Your task to perform on an android device: Is it going to rain tomorrow? Image 0: 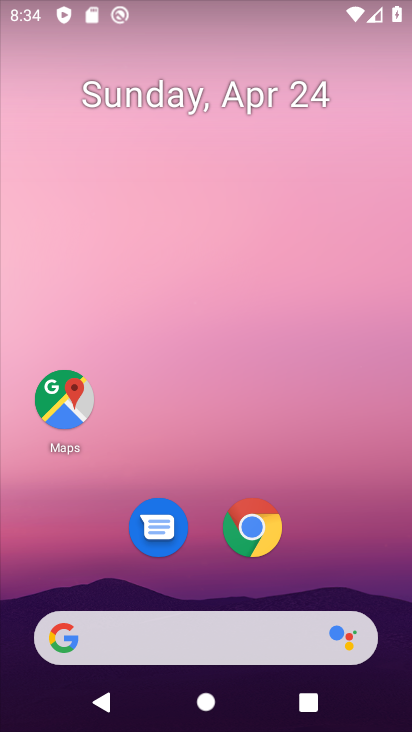
Step 0: drag from (372, 593) to (376, 556)
Your task to perform on an android device: Is it going to rain tomorrow? Image 1: 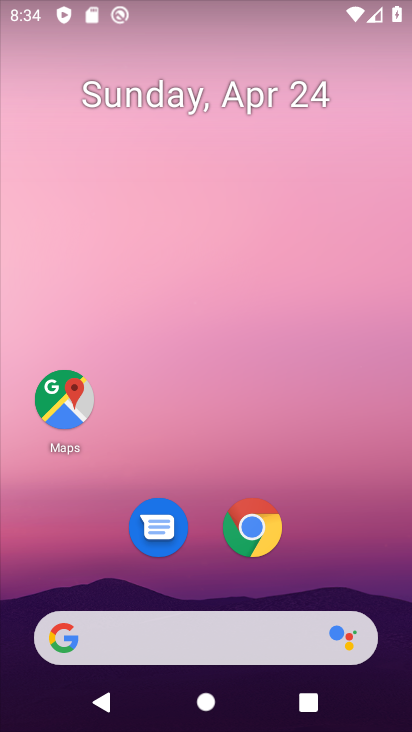
Step 1: drag from (197, 261) to (375, 264)
Your task to perform on an android device: Is it going to rain tomorrow? Image 2: 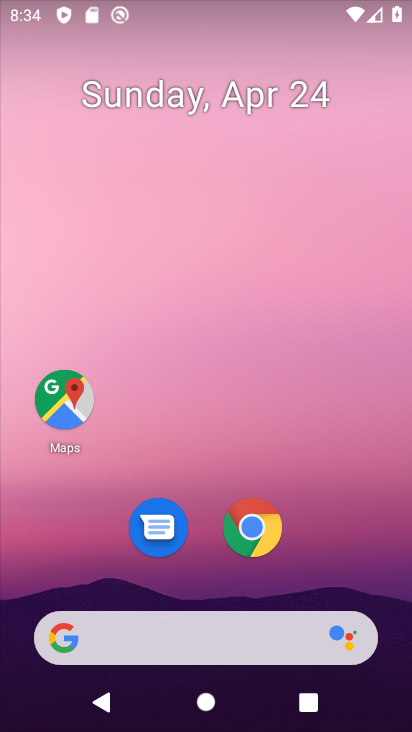
Step 2: drag from (17, 196) to (410, 237)
Your task to perform on an android device: Is it going to rain tomorrow? Image 3: 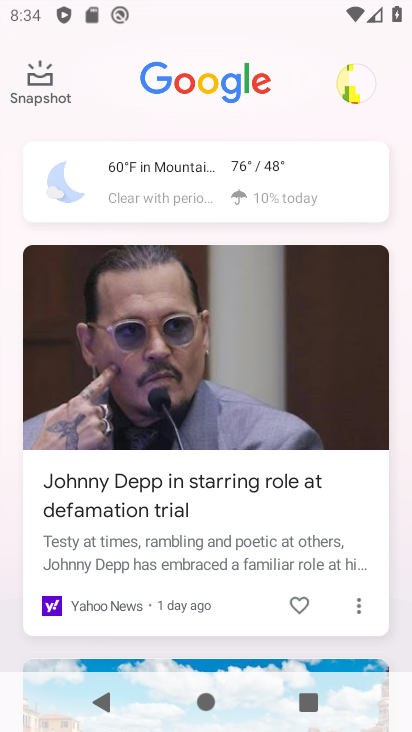
Step 3: click (260, 180)
Your task to perform on an android device: Is it going to rain tomorrow? Image 4: 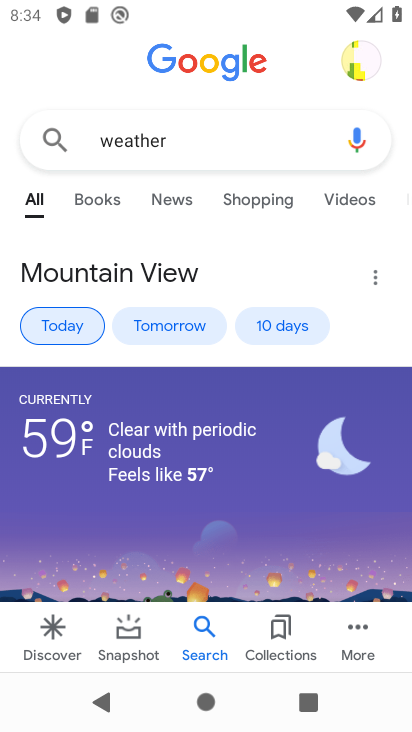
Step 4: click (162, 317)
Your task to perform on an android device: Is it going to rain tomorrow? Image 5: 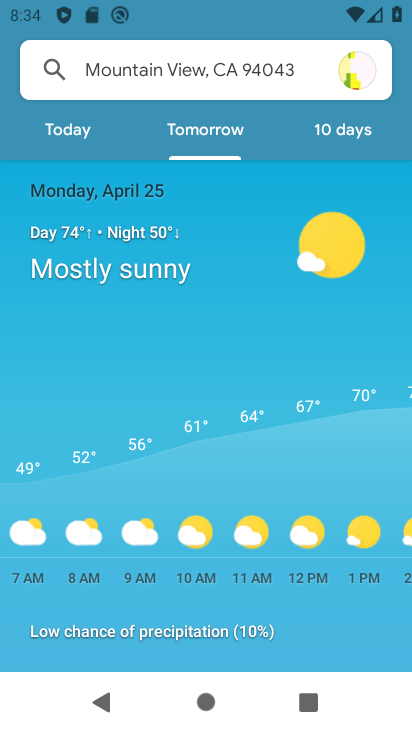
Step 5: task complete